Your task to perform on an android device: install app "Yahoo Mail" Image 0: 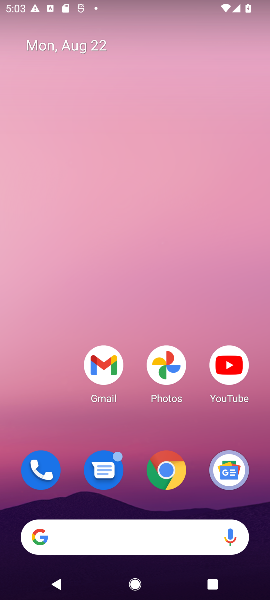
Step 0: drag from (130, 454) to (143, 34)
Your task to perform on an android device: install app "Yahoo Mail" Image 1: 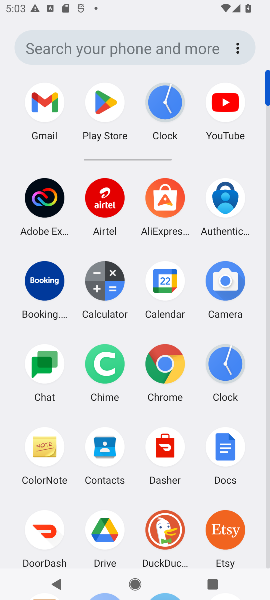
Step 1: click (105, 100)
Your task to perform on an android device: install app "Yahoo Mail" Image 2: 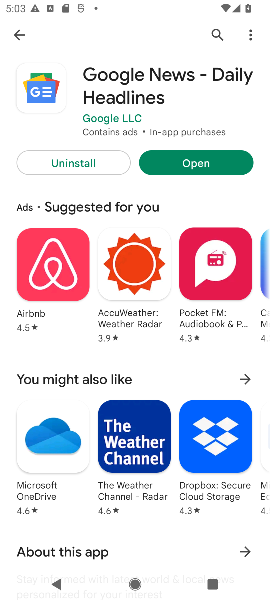
Step 2: click (38, 29)
Your task to perform on an android device: install app "Yahoo Mail" Image 3: 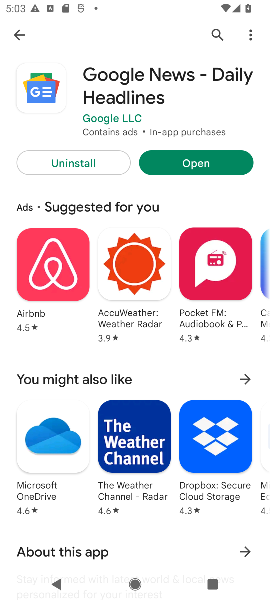
Step 3: click (29, 30)
Your task to perform on an android device: install app "Yahoo Mail" Image 4: 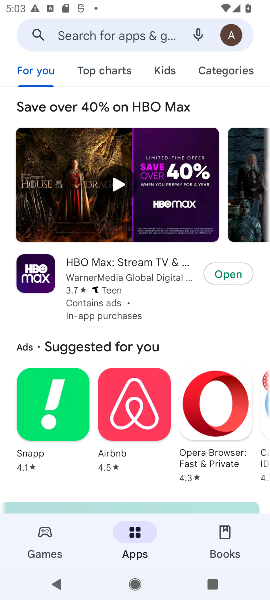
Step 4: click (105, 34)
Your task to perform on an android device: install app "Yahoo Mail" Image 5: 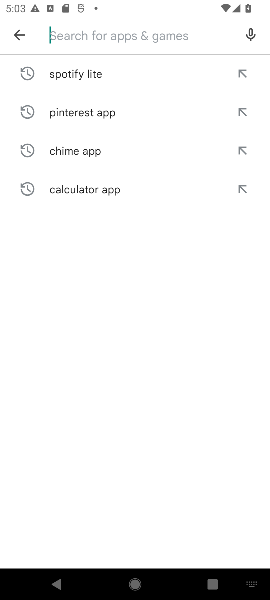
Step 5: click (141, 20)
Your task to perform on an android device: install app "Yahoo Mail" Image 6: 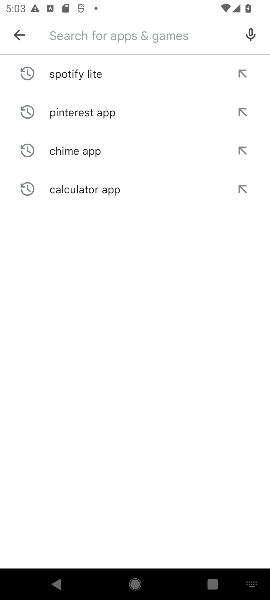
Step 6: type "Yahoo Mail "
Your task to perform on an android device: install app "Yahoo Mail" Image 7: 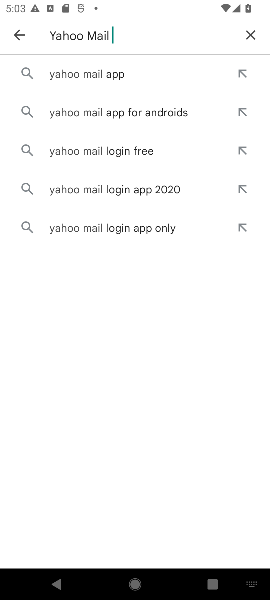
Step 7: click (76, 74)
Your task to perform on an android device: install app "Yahoo Mail" Image 8: 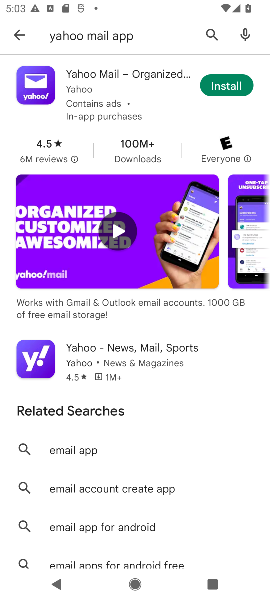
Step 8: click (222, 91)
Your task to perform on an android device: install app "Yahoo Mail" Image 9: 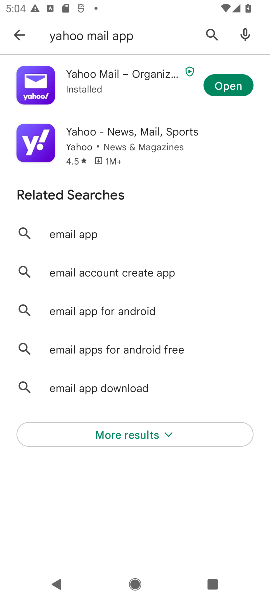
Step 9: click (225, 89)
Your task to perform on an android device: install app "Yahoo Mail" Image 10: 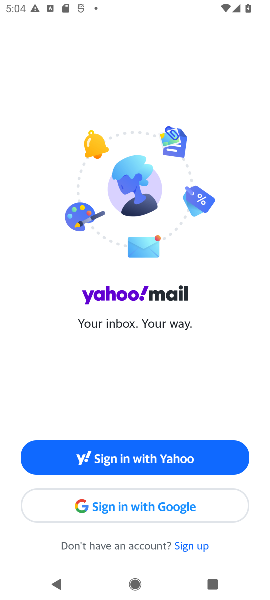
Step 10: task complete